Your task to perform on an android device: see creations saved in the google photos Image 0: 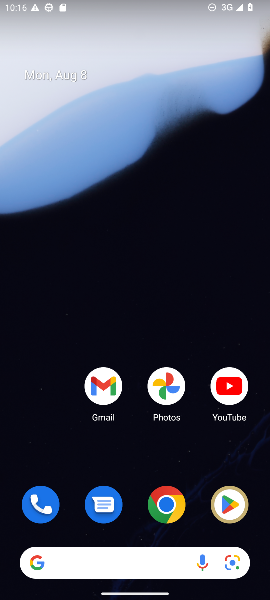
Step 0: drag from (123, 443) to (123, 150)
Your task to perform on an android device: see creations saved in the google photos Image 1: 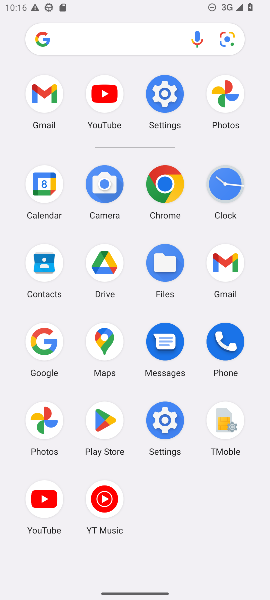
Step 1: click (45, 424)
Your task to perform on an android device: see creations saved in the google photos Image 2: 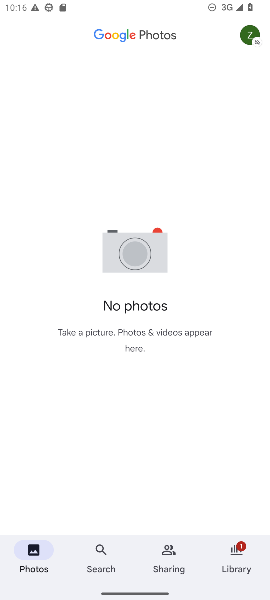
Step 2: click (236, 552)
Your task to perform on an android device: see creations saved in the google photos Image 3: 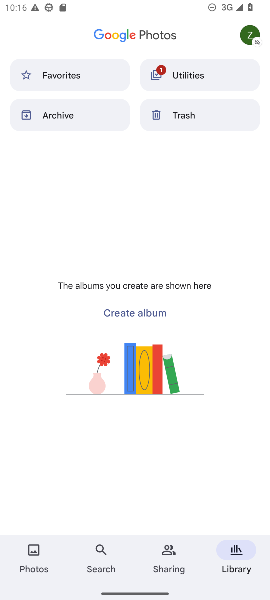
Step 3: click (95, 561)
Your task to perform on an android device: see creations saved in the google photos Image 4: 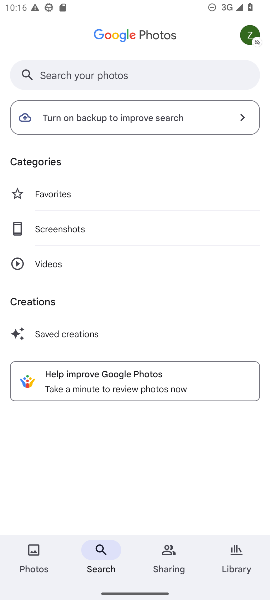
Step 4: click (71, 337)
Your task to perform on an android device: see creations saved in the google photos Image 5: 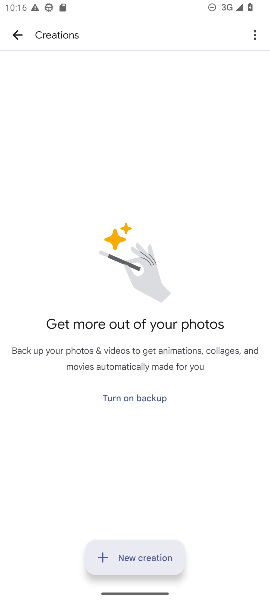
Step 5: task complete